Your task to perform on an android device: empty trash in google photos Image 0: 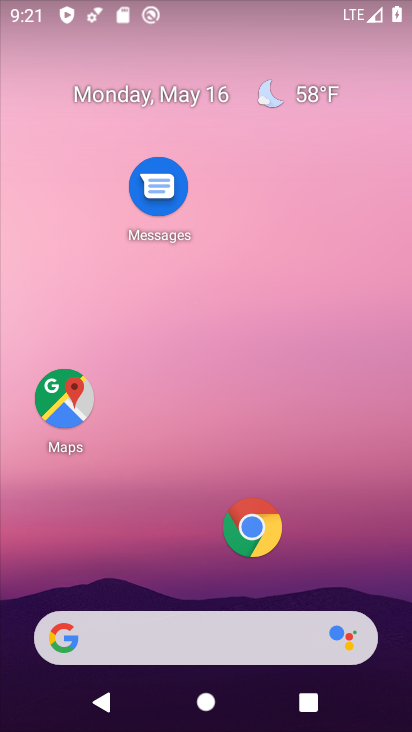
Step 0: drag from (211, 557) to (243, 79)
Your task to perform on an android device: empty trash in google photos Image 1: 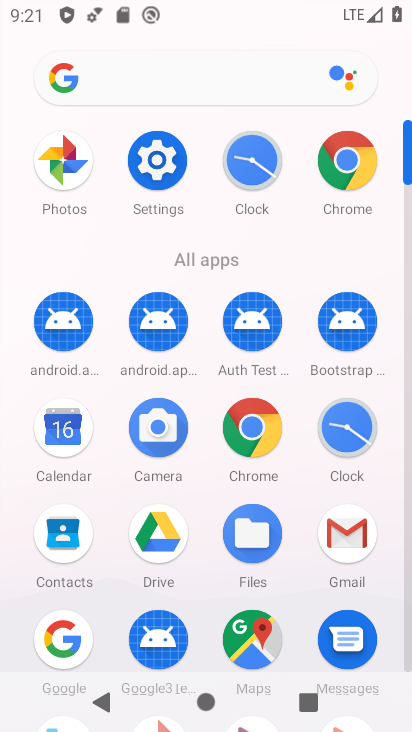
Step 1: drag from (196, 573) to (216, 450)
Your task to perform on an android device: empty trash in google photos Image 2: 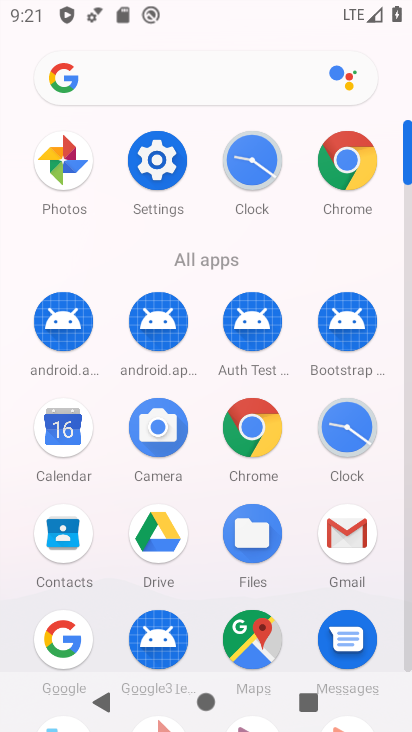
Step 2: click (64, 160)
Your task to perform on an android device: empty trash in google photos Image 3: 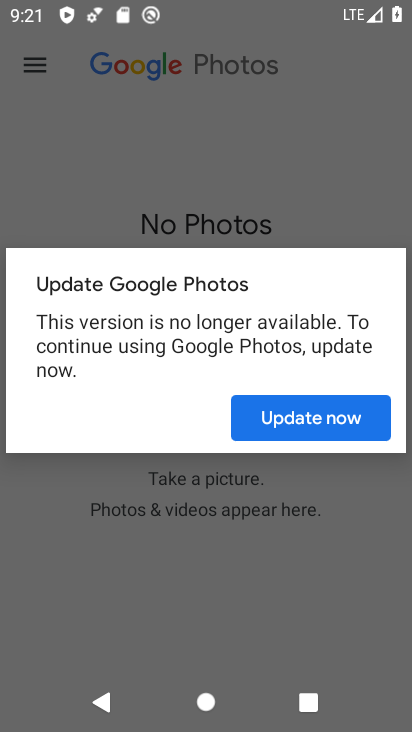
Step 3: click (314, 413)
Your task to perform on an android device: empty trash in google photos Image 4: 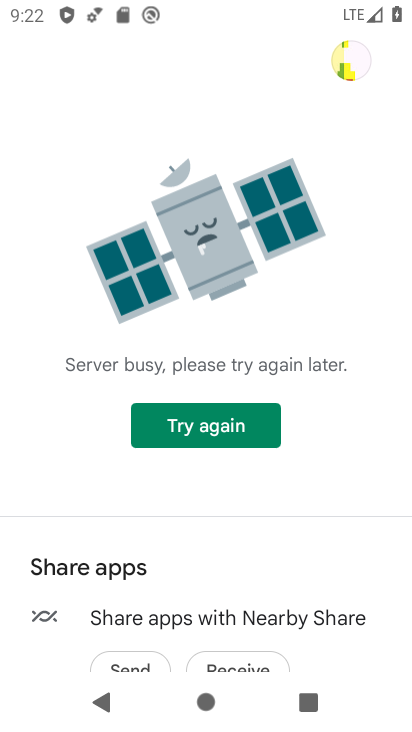
Step 4: task complete